Your task to perform on an android device: open app "Roku - Official Remote Control" Image 0: 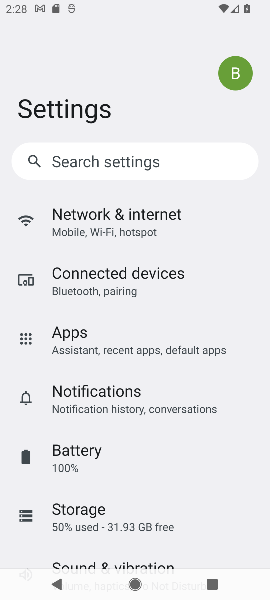
Step 0: press home button
Your task to perform on an android device: open app "Roku - Official Remote Control" Image 1: 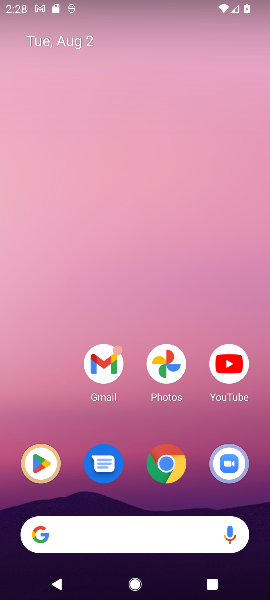
Step 1: click (46, 459)
Your task to perform on an android device: open app "Roku - Official Remote Control" Image 2: 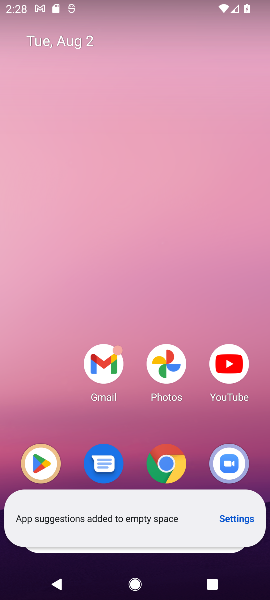
Step 2: click (33, 462)
Your task to perform on an android device: open app "Roku - Official Remote Control" Image 3: 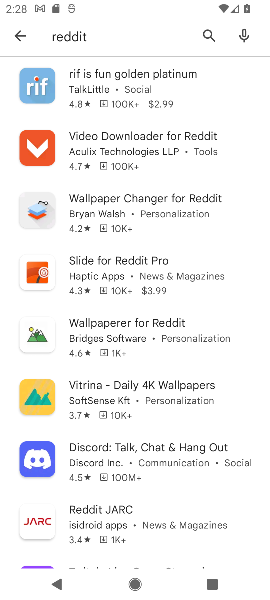
Step 3: click (205, 31)
Your task to perform on an android device: open app "Roku - Official Remote Control" Image 4: 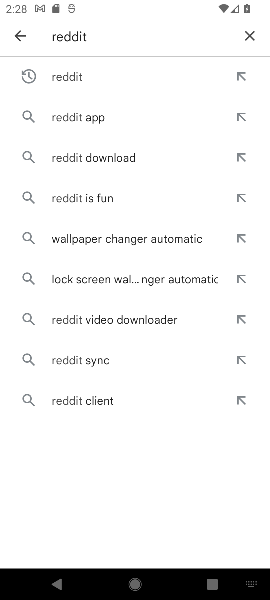
Step 4: click (246, 31)
Your task to perform on an android device: open app "Roku - Official Remote Control" Image 5: 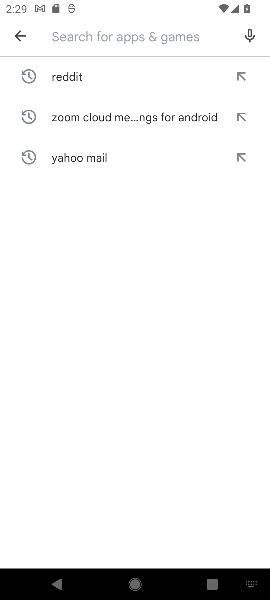
Step 5: type "Official Remote Control"
Your task to perform on an android device: open app "Roku - Official Remote Control" Image 6: 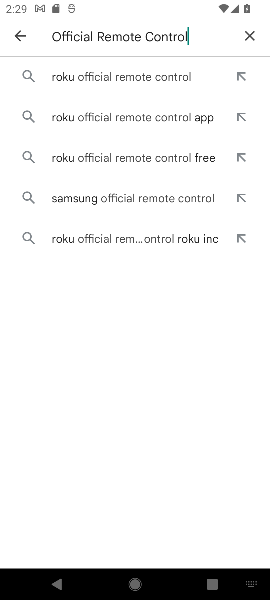
Step 6: click (140, 79)
Your task to perform on an android device: open app "Roku - Official Remote Control" Image 7: 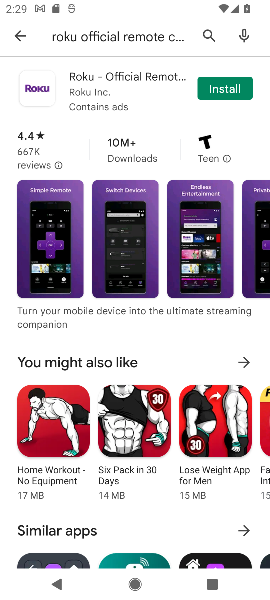
Step 7: task complete